Your task to perform on an android device: Go to ESPN.com Image 0: 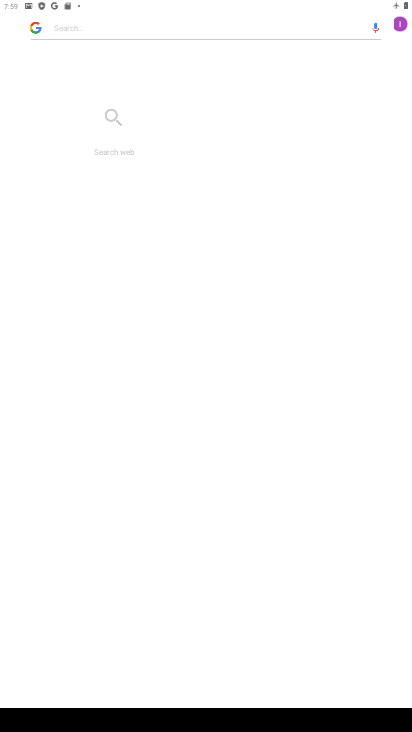
Step 0: drag from (239, 609) to (255, 230)
Your task to perform on an android device: Go to ESPN.com Image 1: 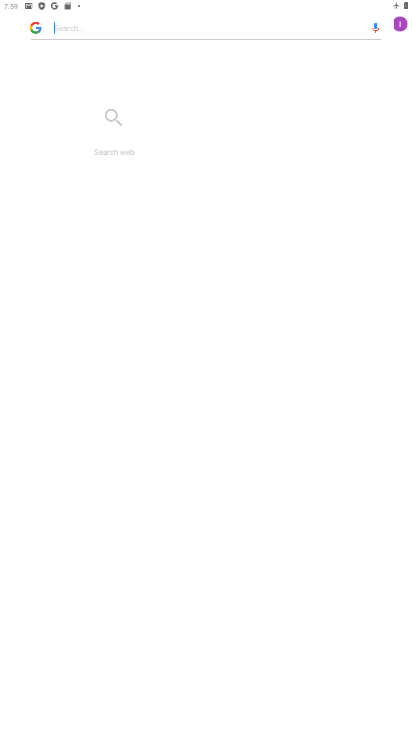
Step 1: press home button
Your task to perform on an android device: Go to ESPN.com Image 2: 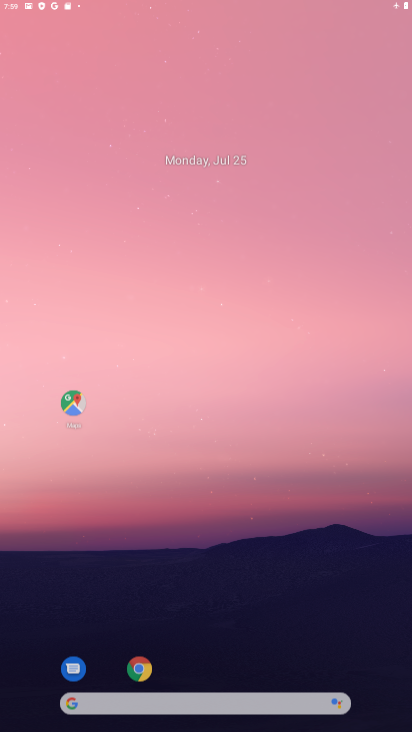
Step 2: drag from (168, 522) to (177, 121)
Your task to perform on an android device: Go to ESPN.com Image 3: 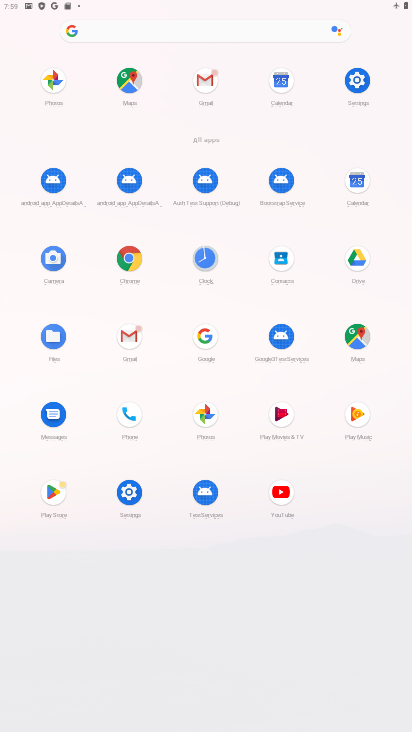
Step 3: click (123, 249)
Your task to perform on an android device: Go to ESPN.com Image 4: 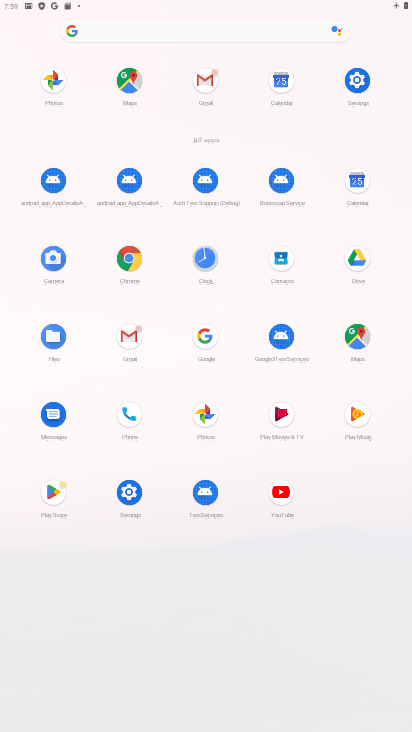
Step 4: click (123, 249)
Your task to perform on an android device: Go to ESPN.com Image 5: 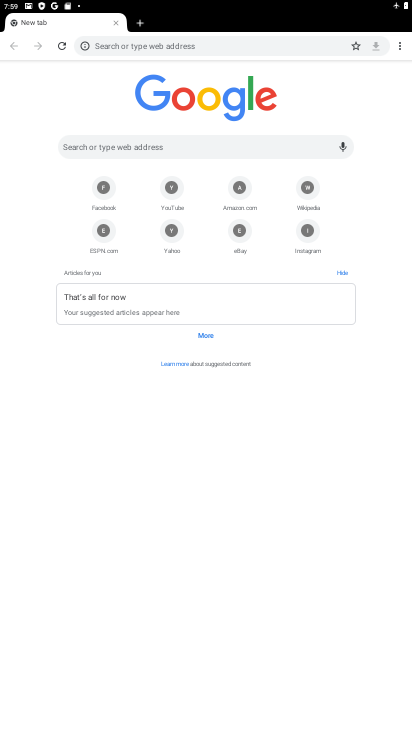
Step 5: click (136, 145)
Your task to perform on an android device: Go to ESPN.com Image 6: 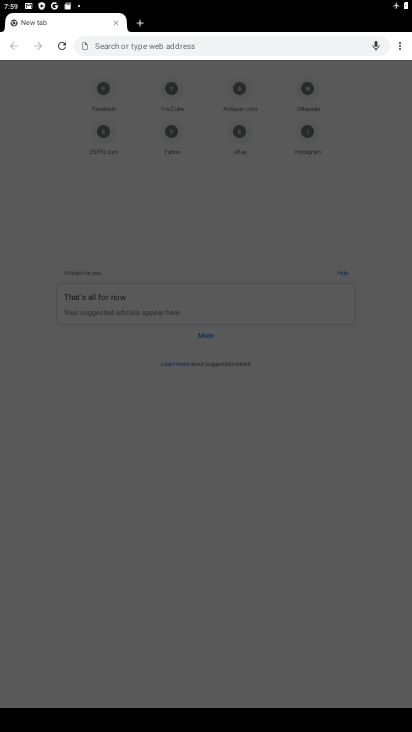
Step 6: click (156, 48)
Your task to perform on an android device: Go to ESPN.com Image 7: 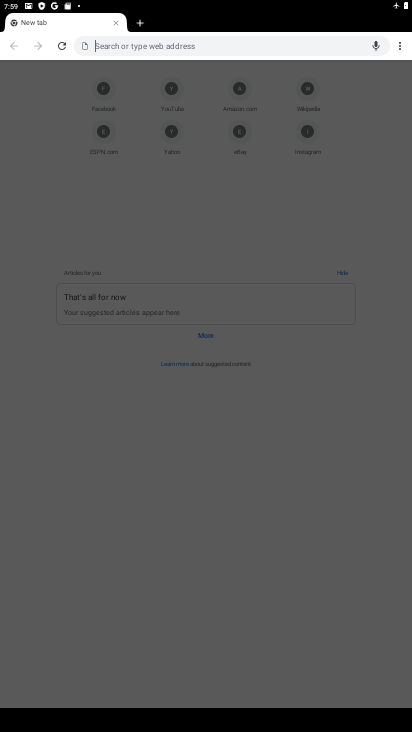
Step 7: type "ESPN.com"
Your task to perform on an android device: Go to ESPN.com Image 8: 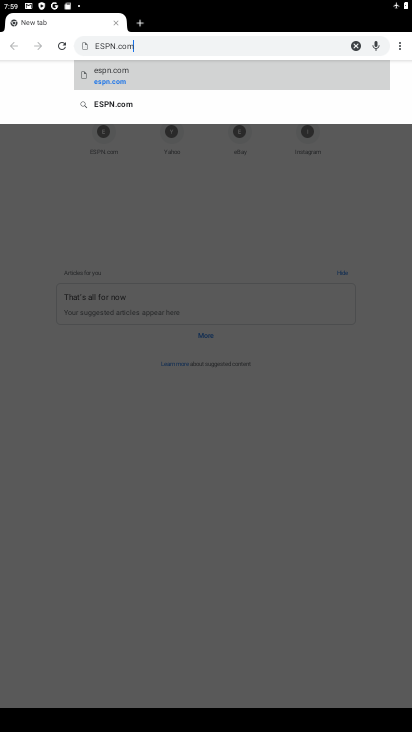
Step 8: type ""
Your task to perform on an android device: Go to ESPN.com Image 9: 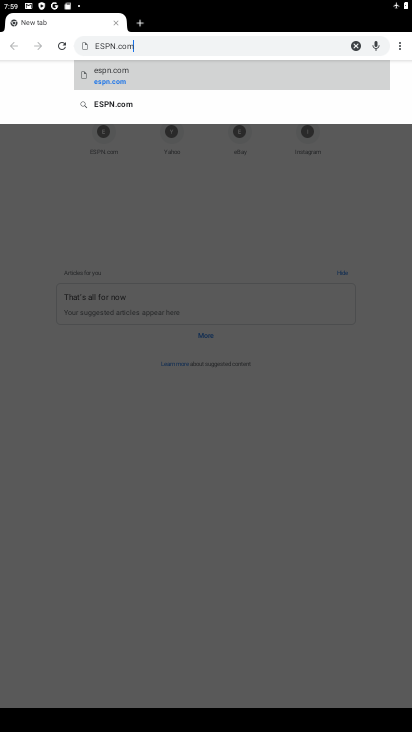
Step 9: click (110, 82)
Your task to perform on an android device: Go to ESPN.com Image 10: 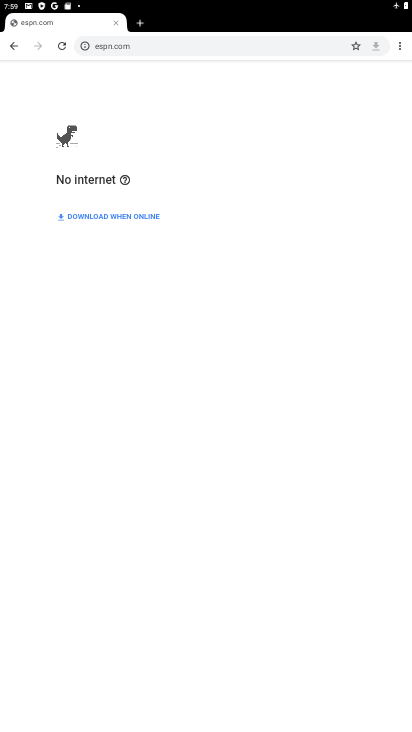
Step 10: task complete